Your task to perform on an android device: Open Youtube and go to "Your channel" Image 0: 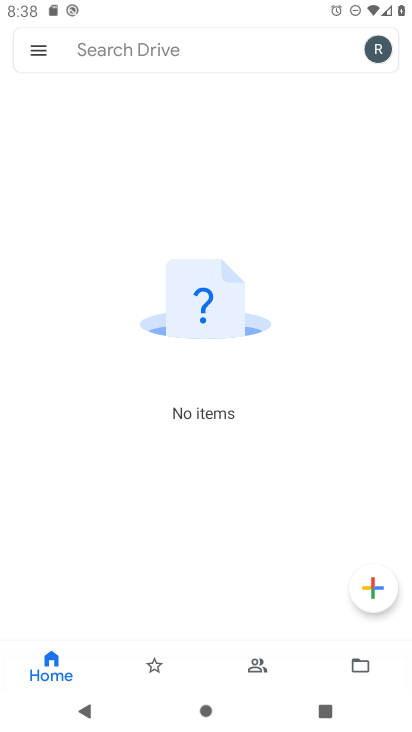
Step 0: press home button
Your task to perform on an android device: Open Youtube and go to "Your channel" Image 1: 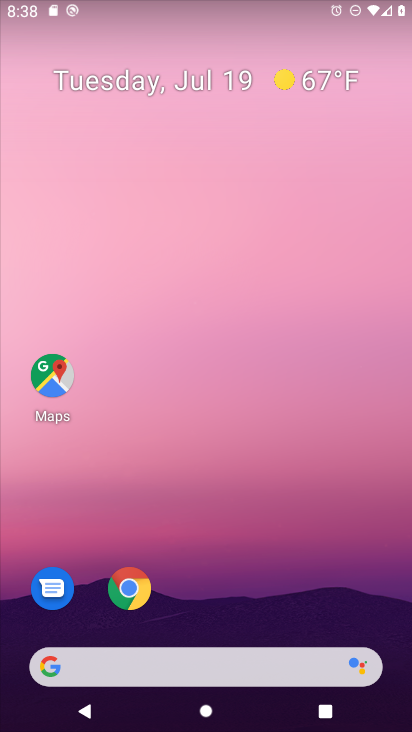
Step 1: drag from (334, 593) to (336, 117)
Your task to perform on an android device: Open Youtube and go to "Your channel" Image 2: 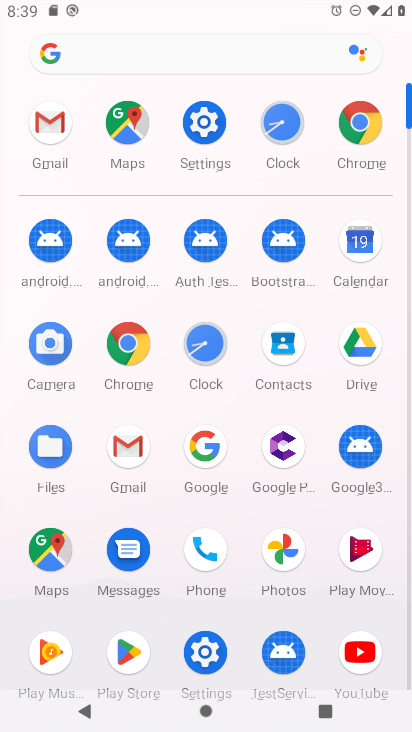
Step 2: click (363, 658)
Your task to perform on an android device: Open Youtube and go to "Your channel" Image 3: 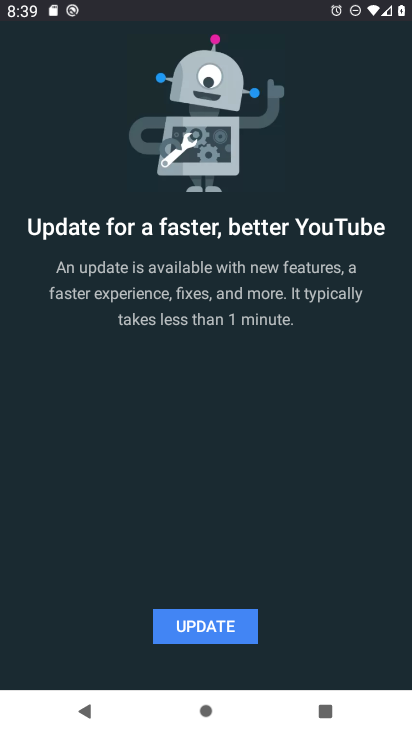
Step 3: click (235, 623)
Your task to perform on an android device: Open Youtube and go to "Your channel" Image 4: 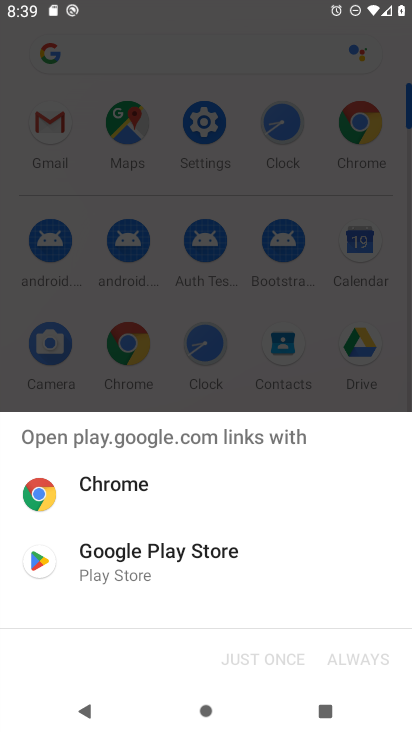
Step 4: click (152, 551)
Your task to perform on an android device: Open Youtube and go to "Your channel" Image 5: 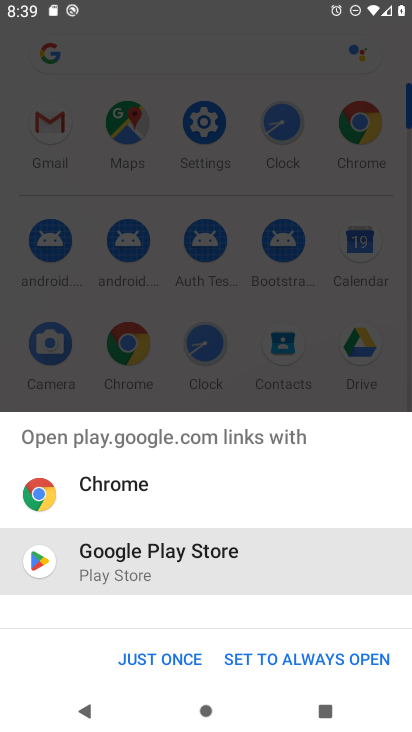
Step 5: click (150, 660)
Your task to perform on an android device: Open Youtube and go to "Your channel" Image 6: 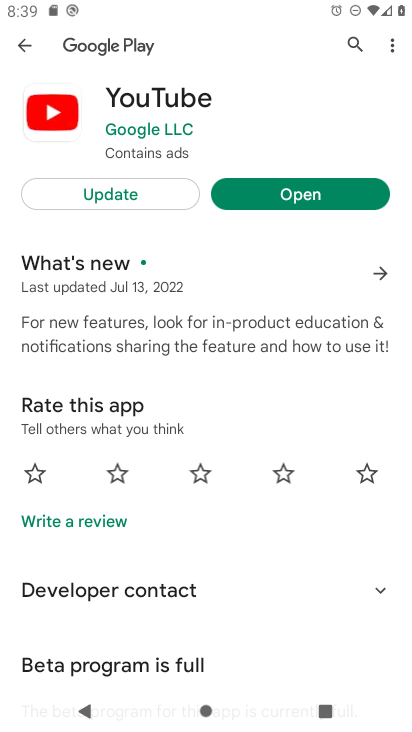
Step 6: click (134, 195)
Your task to perform on an android device: Open Youtube and go to "Your channel" Image 7: 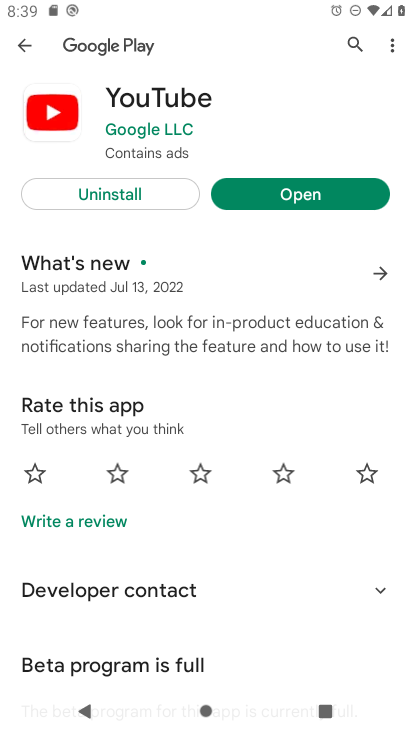
Step 7: click (278, 196)
Your task to perform on an android device: Open Youtube and go to "Your channel" Image 8: 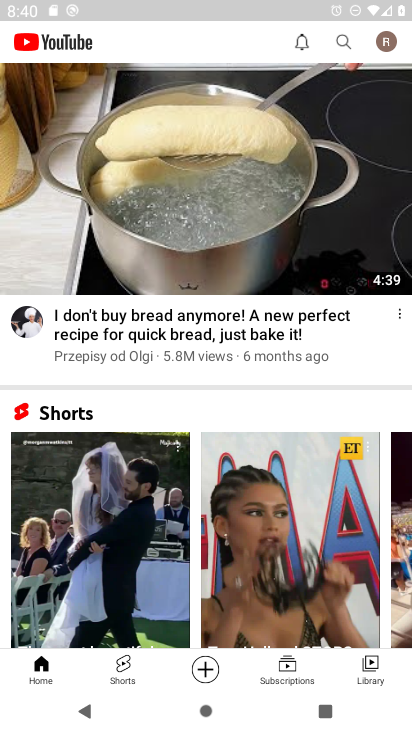
Step 8: click (387, 36)
Your task to perform on an android device: Open Youtube and go to "Your channel" Image 9: 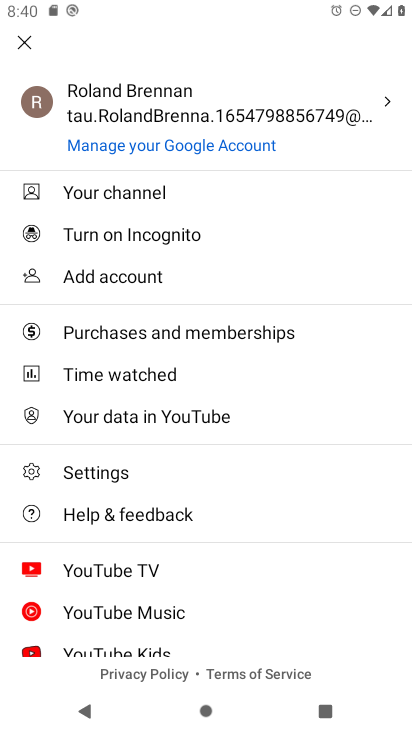
Step 9: click (161, 195)
Your task to perform on an android device: Open Youtube and go to "Your channel" Image 10: 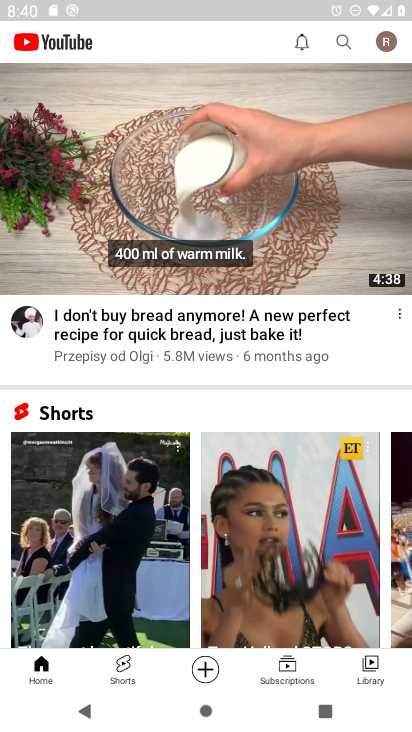
Step 10: task complete